Your task to perform on an android device: empty trash in the gmail app Image 0: 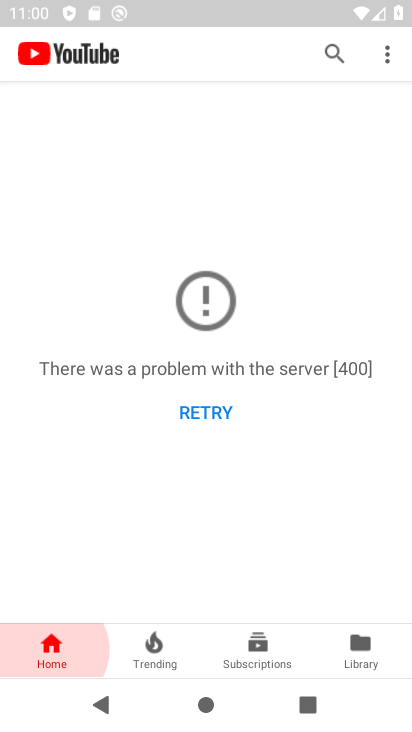
Step 0: press home button
Your task to perform on an android device: empty trash in the gmail app Image 1: 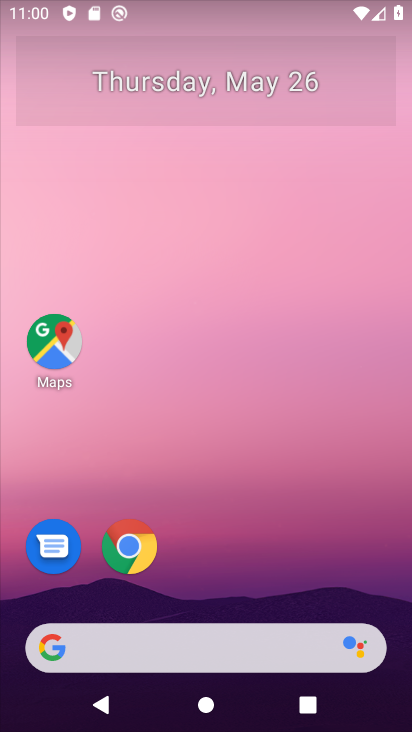
Step 1: drag from (229, 576) to (190, 113)
Your task to perform on an android device: empty trash in the gmail app Image 2: 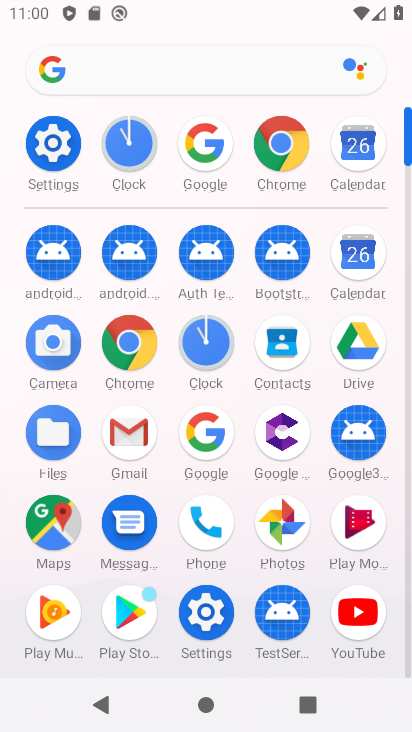
Step 2: click (115, 430)
Your task to perform on an android device: empty trash in the gmail app Image 3: 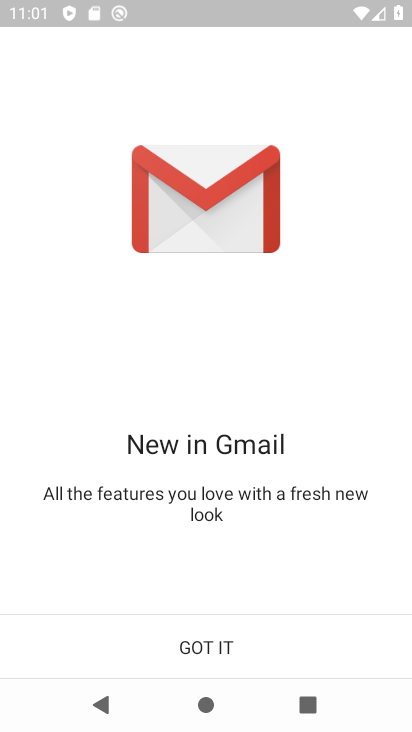
Step 3: click (203, 632)
Your task to perform on an android device: empty trash in the gmail app Image 4: 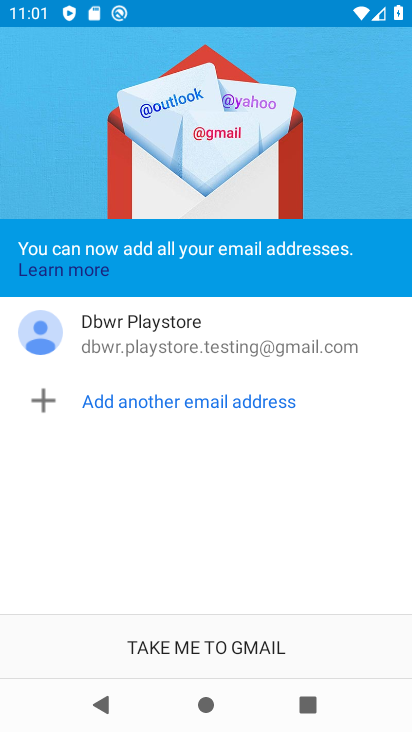
Step 4: click (215, 646)
Your task to perform on an android device: empty trash in the gmail app Image 5: 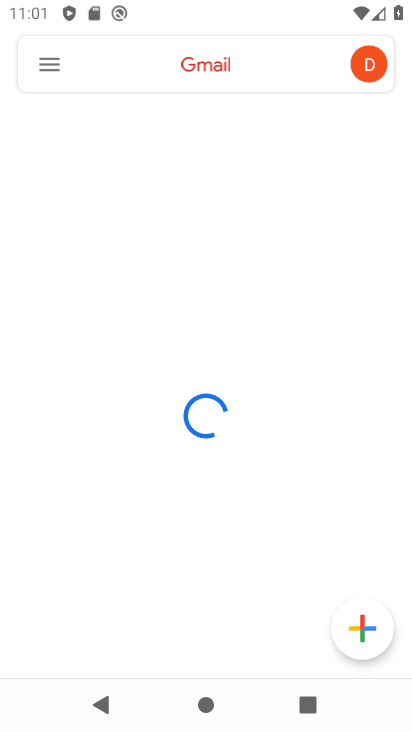
Step 5: click (50, 60)
Your task to perform on an android device: empty trash in the gmail app Image 6: 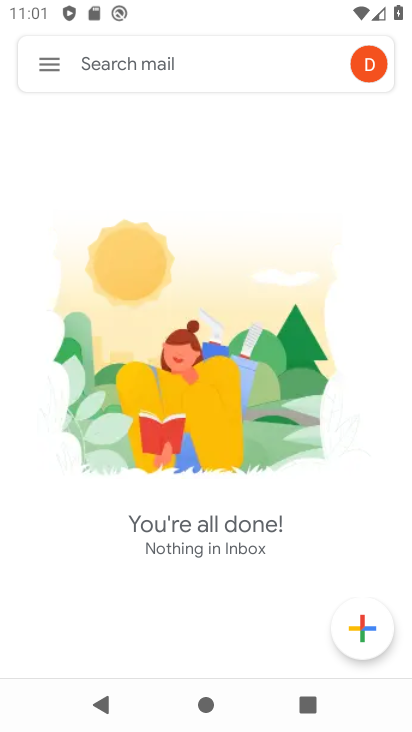
Step 6: click (50, 60)
Your task to perform on an android device: empty trash in the gmail app Image 7: 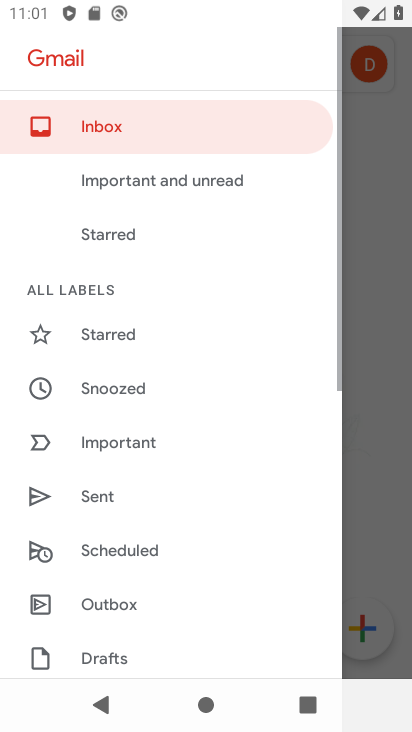
Step 7: drag from (149, 616) to (130, 443)
Your task to perform on an android device: empty trash in the gmail app Image 8: 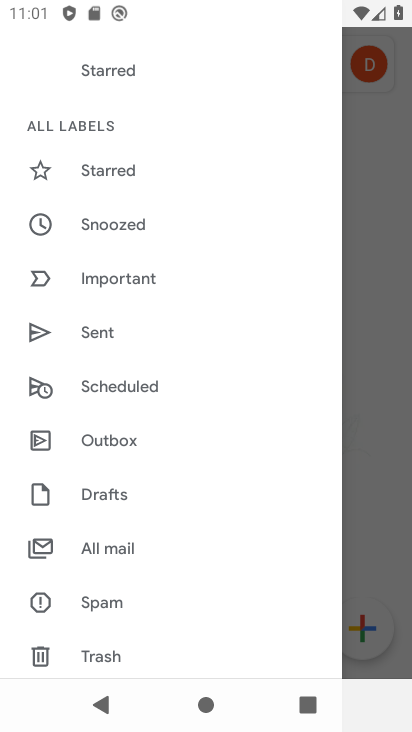
Step 8: click (109, 667)
Your task to perform on an android device: empty trash in the gmail app Image 9: 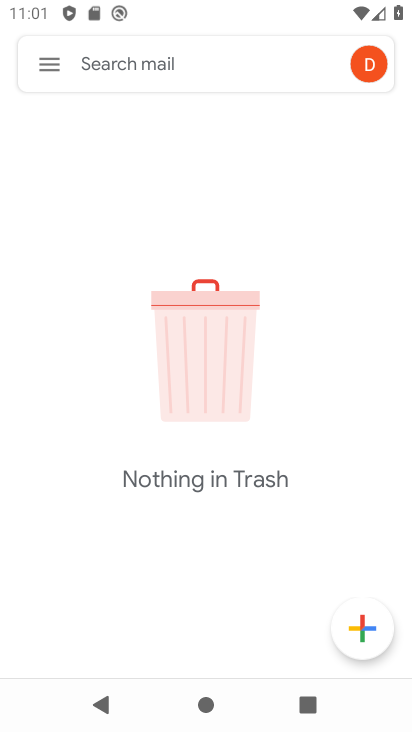
Step 9: task complete